Your task to perform on an android device: turn notification dots off Image 0: 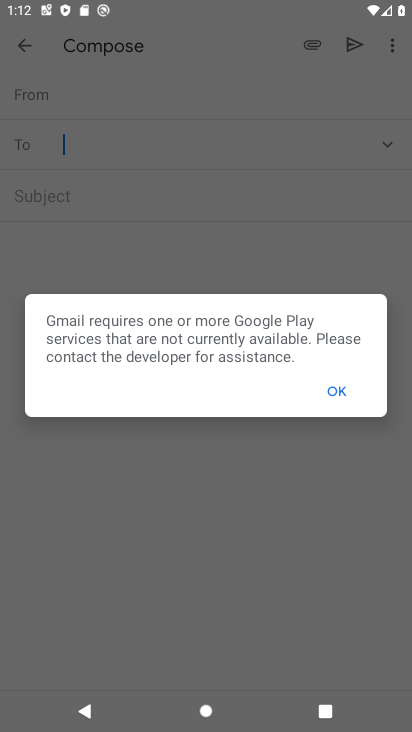
Step 0: press home button
Your task to perform on an android device: turn notification dots off Image 1: 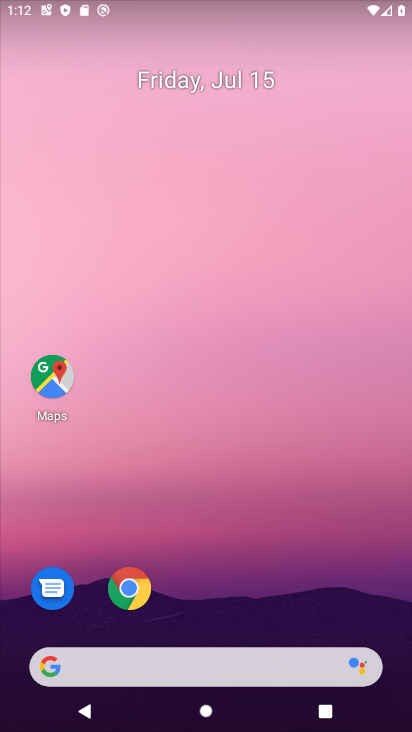
Step 1: drag from (347, 480) to (304, 102)
Your task to perform on an android device: turn notification dots off Image 2: 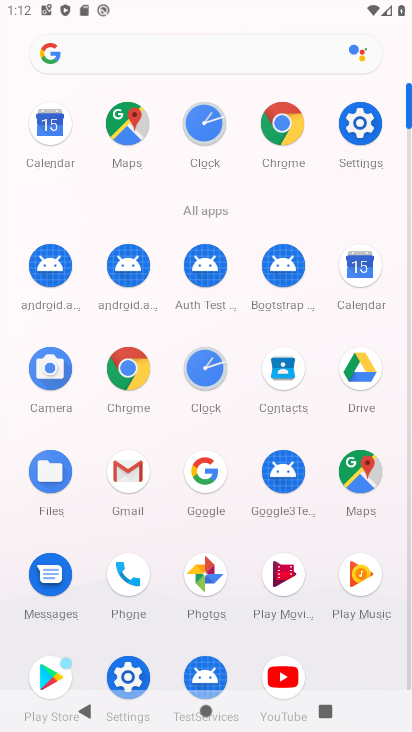
Step 2: click (127, 676)
Your task to perform on an android device: turn notification dots off Image 3: 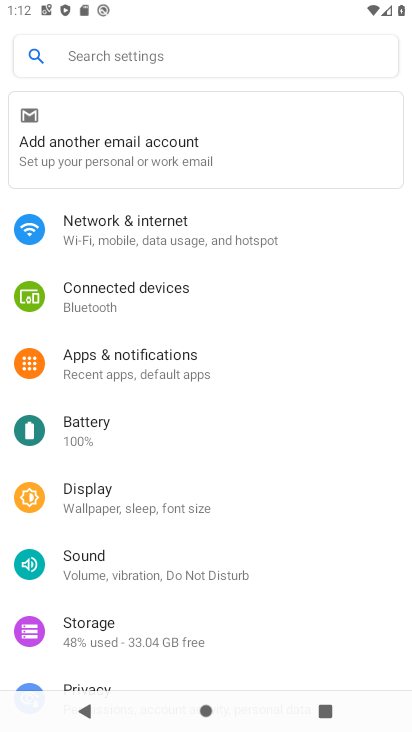
Step 3: click (136, 371)
Your task to perform on an android device: turn notification dots off Image 4: 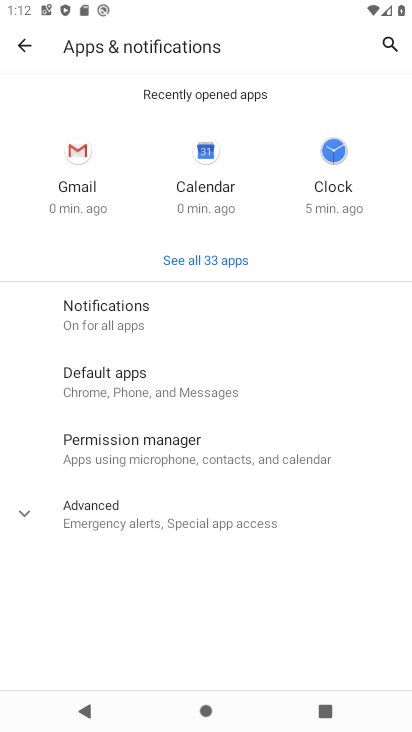
Step 4: click (97, 303)
Your task to perform on an android device: turn notification dots off Image 5: 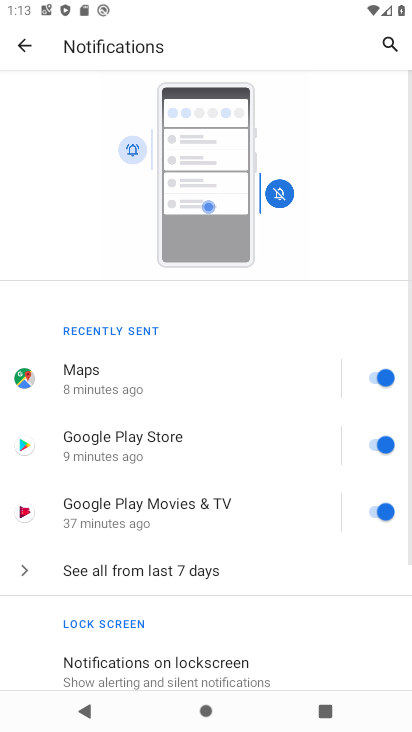
Step 5: drag from (220, 633) to (259, 180)
Your task to perform on an android device: turn notification dots off Image 6: 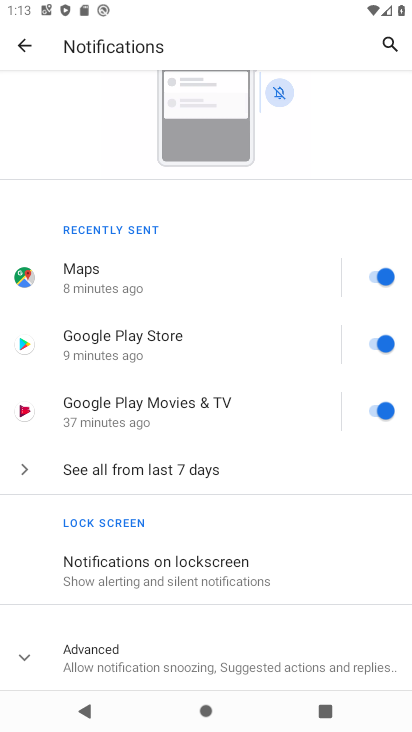
Step 6: click (37, 659)
Your task to perform on an android device: turn notification dots off Image 7: 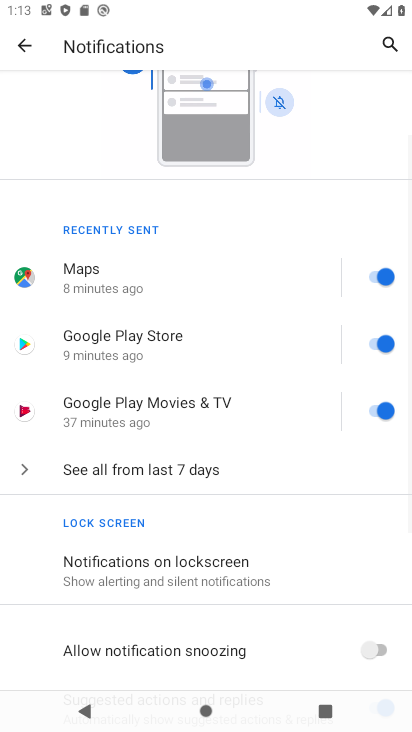
Step 7: drag from (250, 622) to (273, 158)
Your task to perform on an android device: turn notification dots off Image 8: 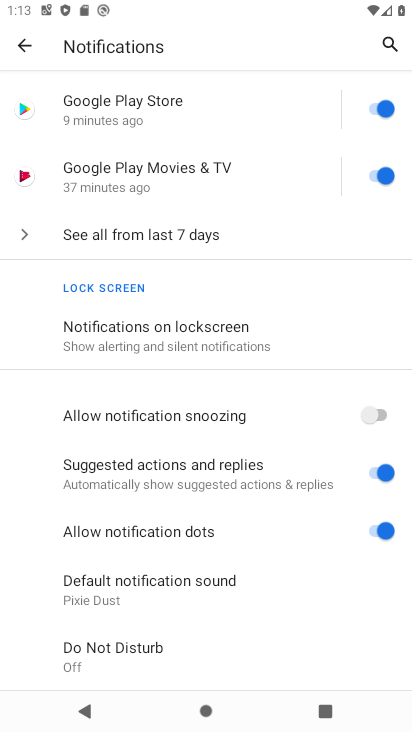
Step 8: click (373, 526)
Your task to perform on an android device: turn notification dots off Image 9: 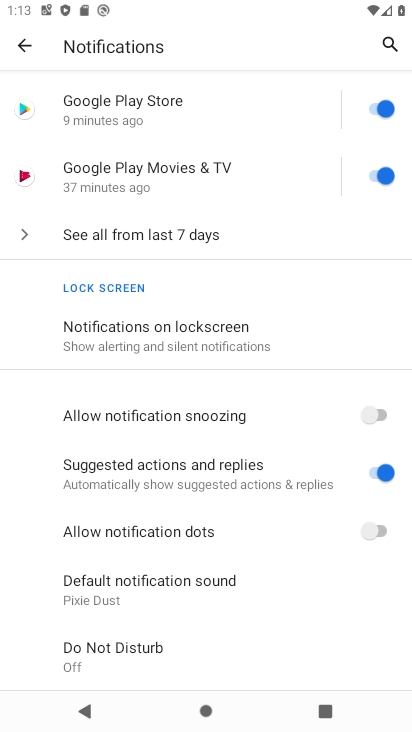
Step 9: task complete